Your task to perform on an android device: Go to privacy settings Image 0: 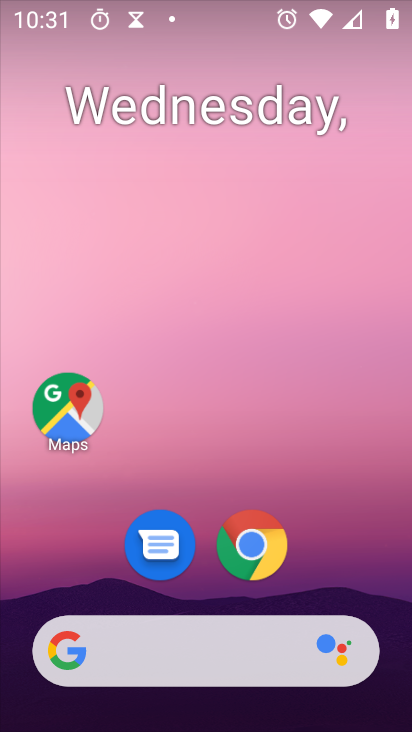
Step 0: press home button
Your task to perform on an android device: Go to privacy settings Image 1: 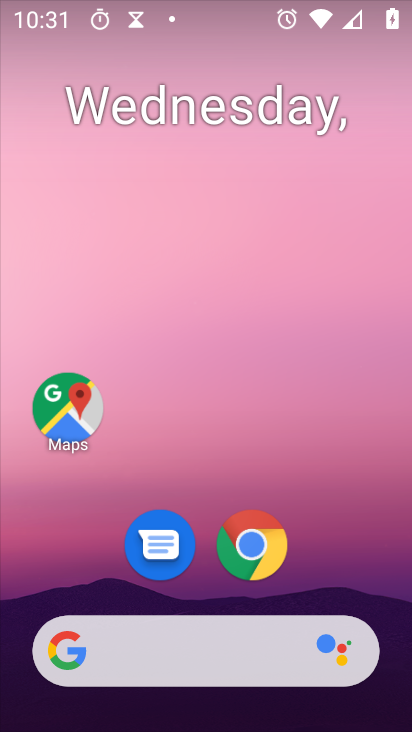
Step 1: drag from (187, 672) to (308, 184)
Your task to perform on an android device: Go to privacy settings Image 2: 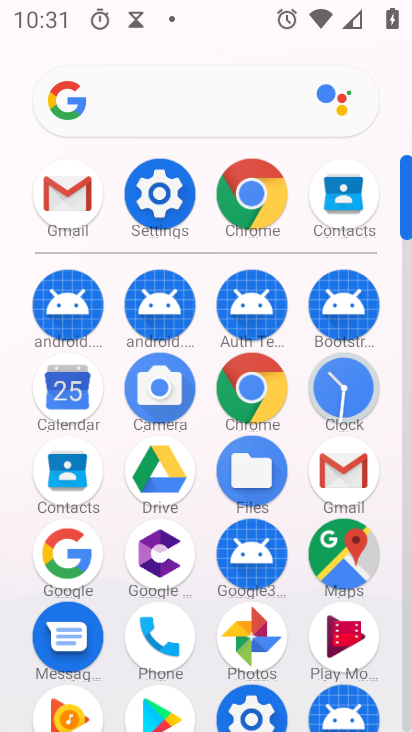
Step 2: click (161, 201)
Your task to perform on an android device: Go to privacy settings Image 3: 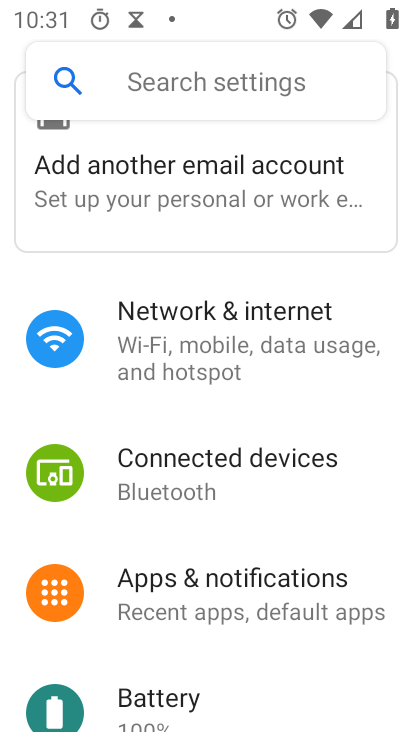
Step 3: drag from (236, 699) to (292, 249)
Your task to perform on an android device: Go to privacy settings Image 4: 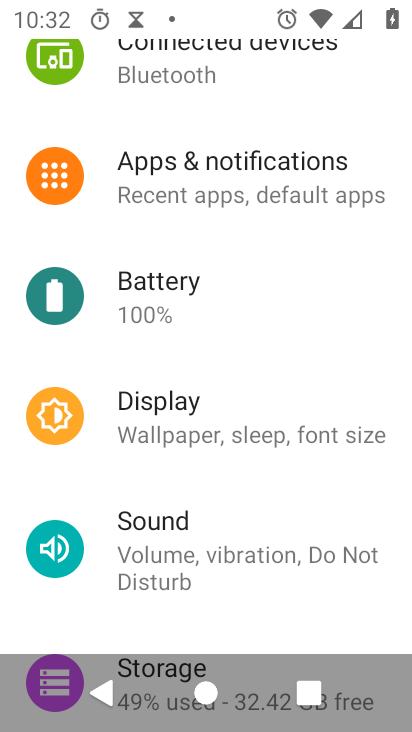
Step 4: drag from (204, 609) to (330, 235)
Your task to perform on an android device: Go to privacy settings Image 5: 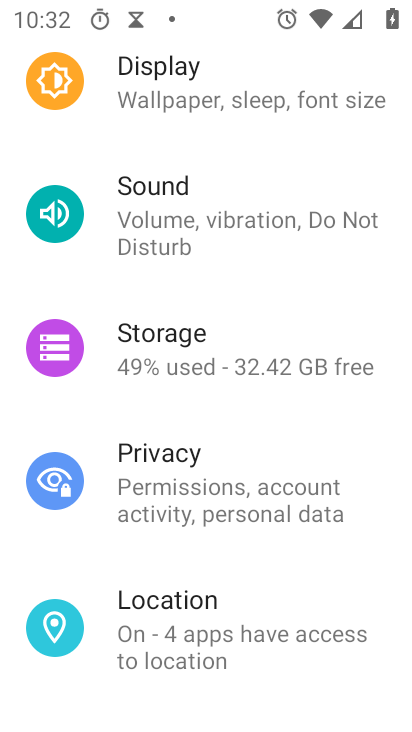
Step 5: click (183, 477)
Your task to perform on an android device: Go to privacy settings Image 6: 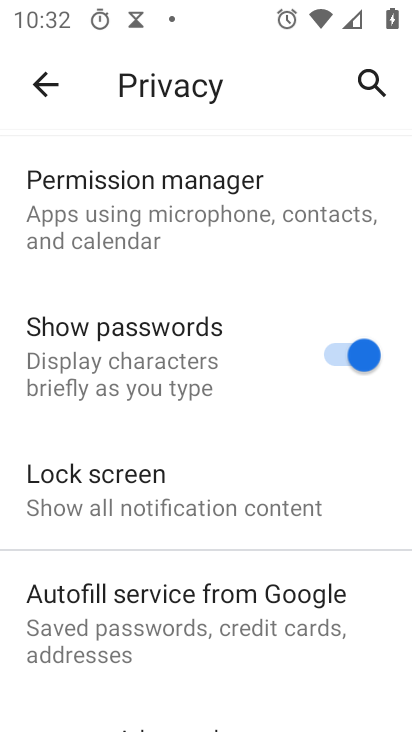
Step 6: task complete